Your task to perform on an android device: turn on the 12-hour format for clock Image 0: 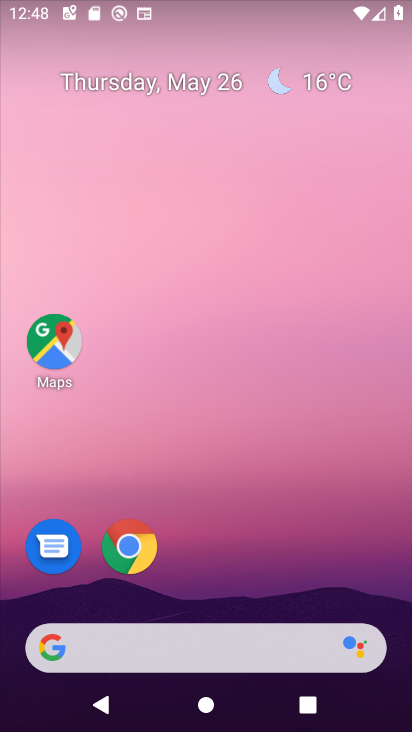
Step 0: drag from (199, 565) to (245, 234)
Your task to perform on an android device: turn on the 12-hour format for clock Image 1: 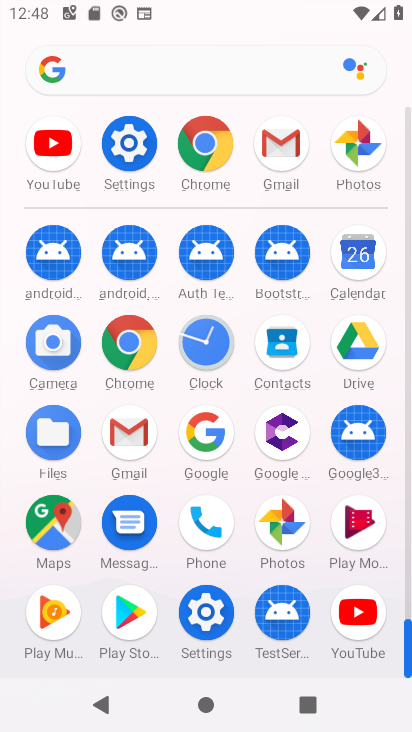
Step 1: click (196, 344)
Your task to perform on an android device: turn on the 12-hour format for clock Image 2: 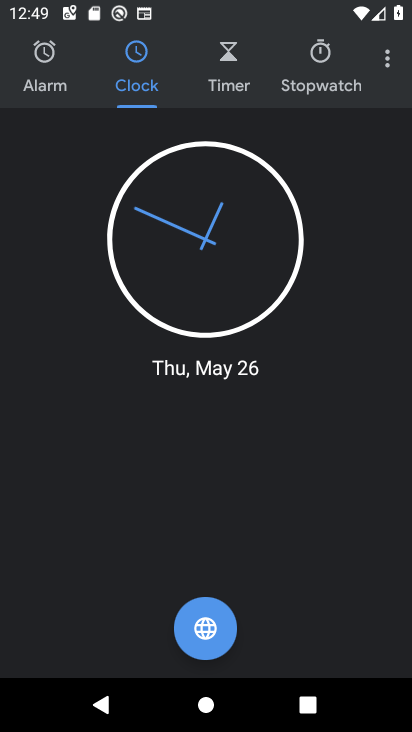
Step 2: click (386, 62)
Your task to perform on an android device: turn on the 12-hour format for clock Image 3: 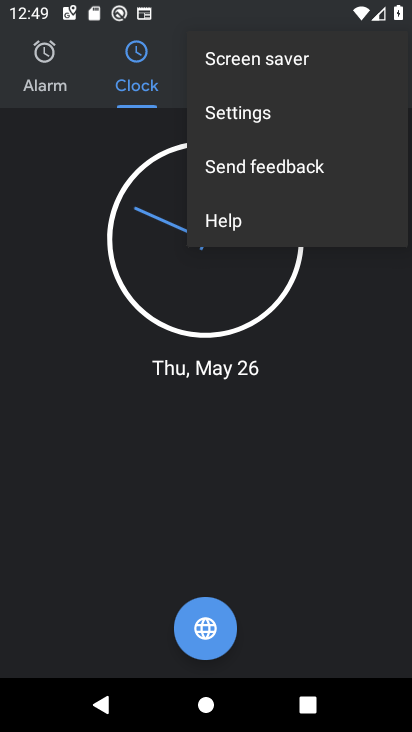
Step 3: click (251, 116)
Your task to perform on an android device: turn on the 12-hour format for clock Image 4: 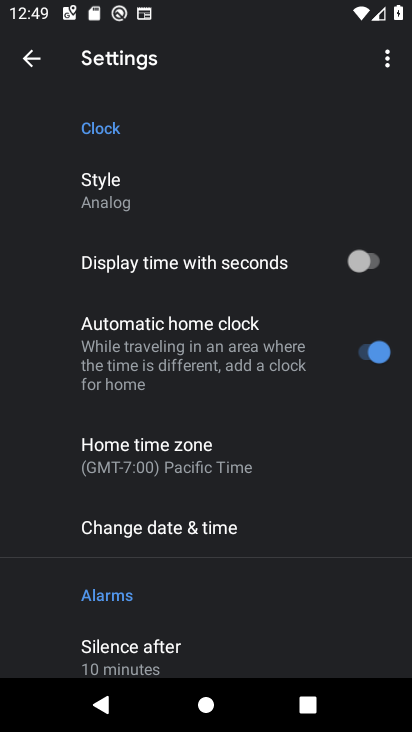
Step 4: click (190, 530)
Your task to perform on an android device: turn on the 12-hour format for clock Image 5: 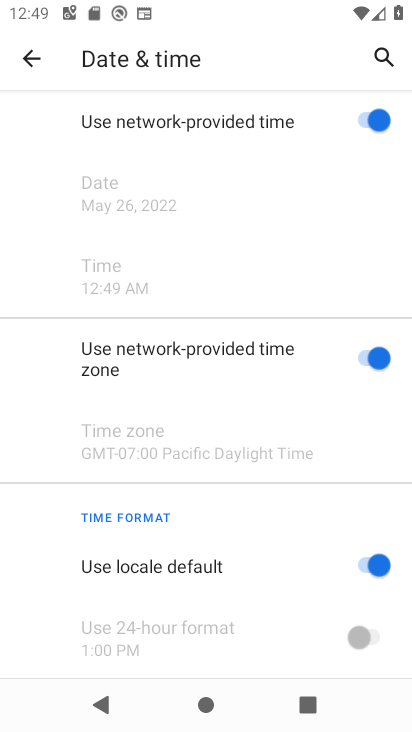
Step 5: task complete